Your task to perform on an android device: open wifi settings Image 0: 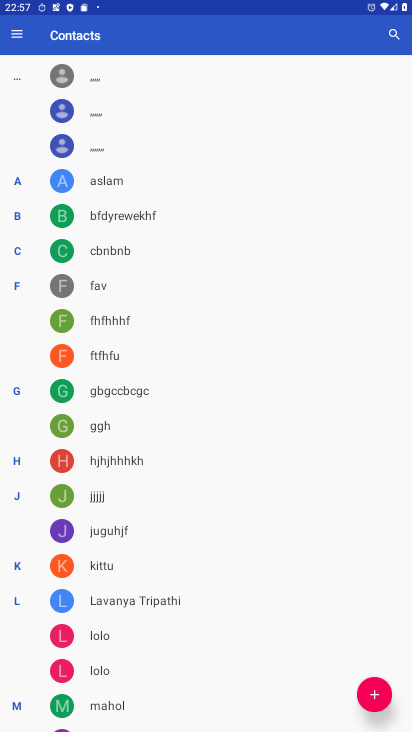
Step 0: press home button
Your task to perform on an android device: open wifi settings Image 1: 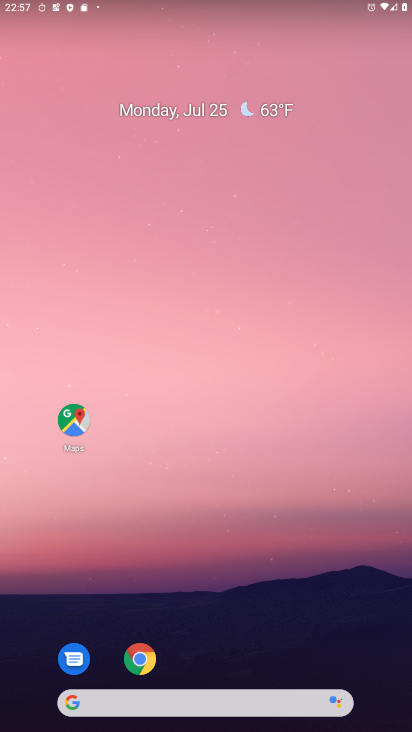
Step 1: drag from (219, 729) to (224, 308)
Your task to perform on an android device: open wifi settings Image 2: 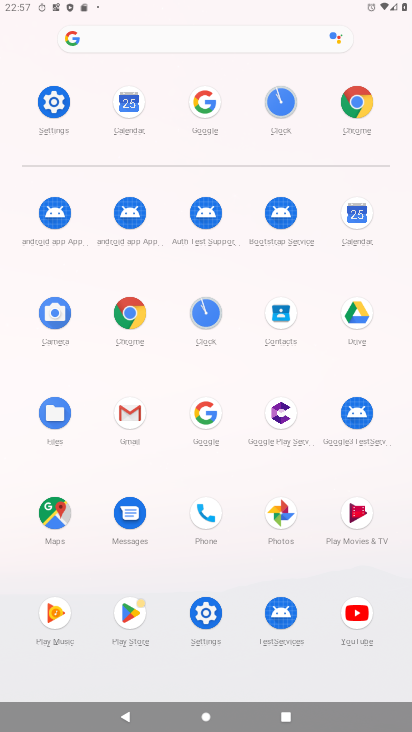
Step 2: click (57, 96)
Your task to perform on an android device: open wifi settings Image 3: 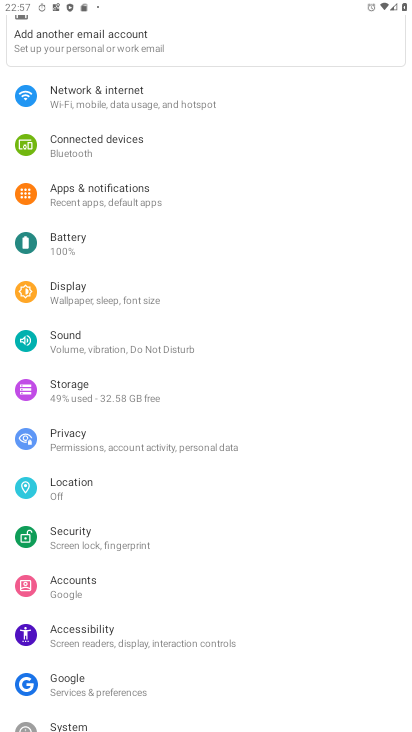
Step 3: click (93, 97)
Your task to perform on an android device: open wifi settings Image 4: 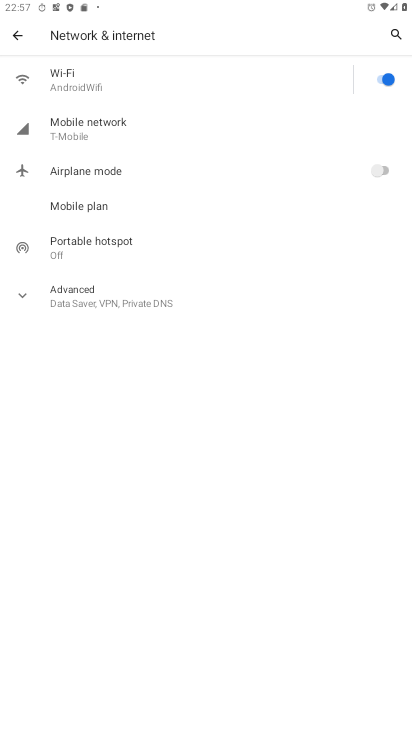
Step 4: click (72, 79)
Your task to perform on an android device: open wifi settings Image 5: 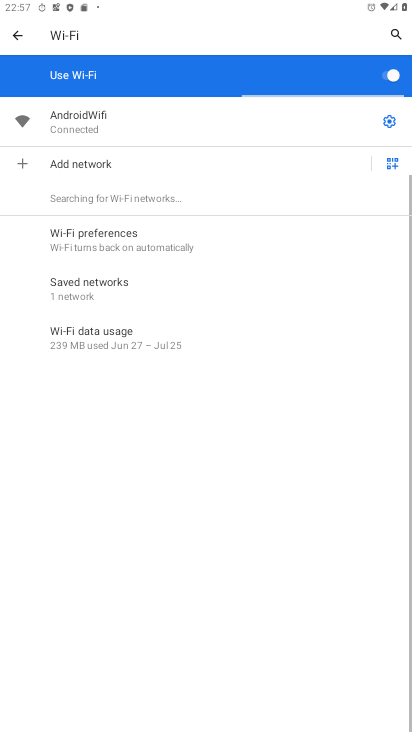
Step 5: task complete